Your task to perform on an android device: turn off location Image 0: 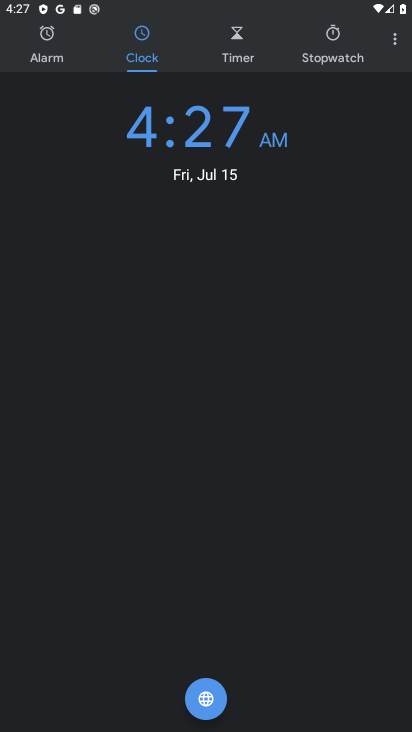
Step 0: press back button
Your task to perform on an android device: turn off location Image 1: 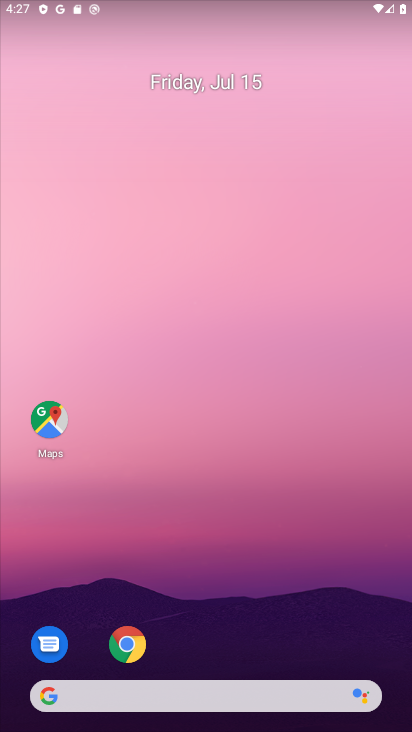
Step 1: drag from (205, 675) to (210, 304)
Your task to perform on an android device: turn off location Image 2: 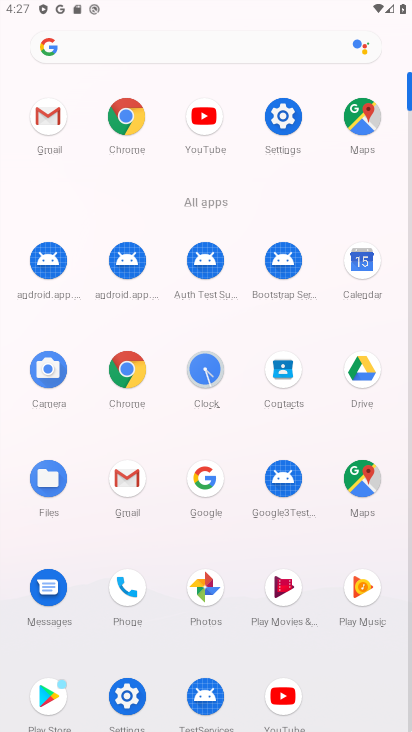
Step 2: click (272, 125)
Your task to perform on an android device: turn off location Image 3: 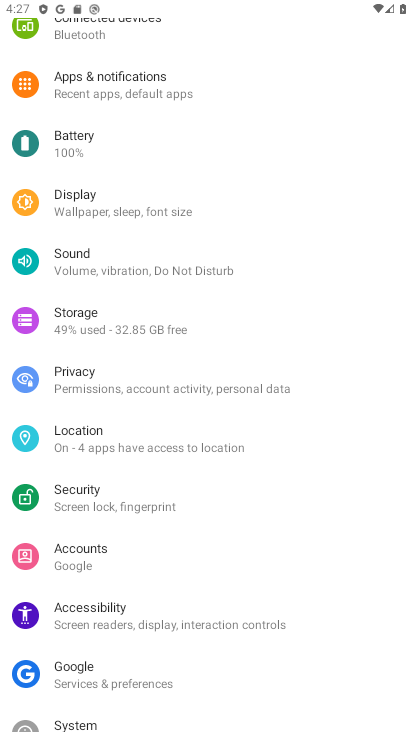
Step 3: drag from (343, 253) to (316, 66)
Your task to perform on an android device: turn off location Image 4: 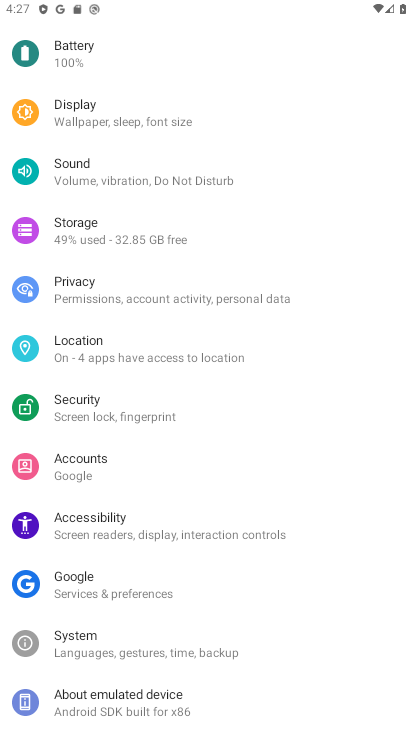
Step 4: drag from (320, 397) to (301, 181)
Your task to perform on an android device: turn off location Image 5: 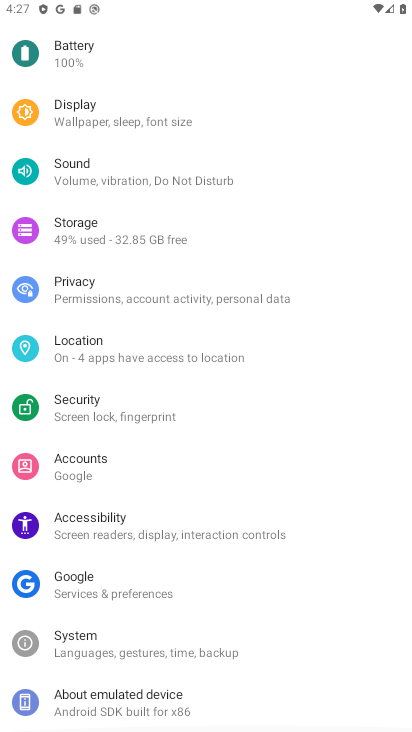
Step 5: drag from (308, 164) to (310, 517)
Your task to perform on an android device: turn off location Image 6: 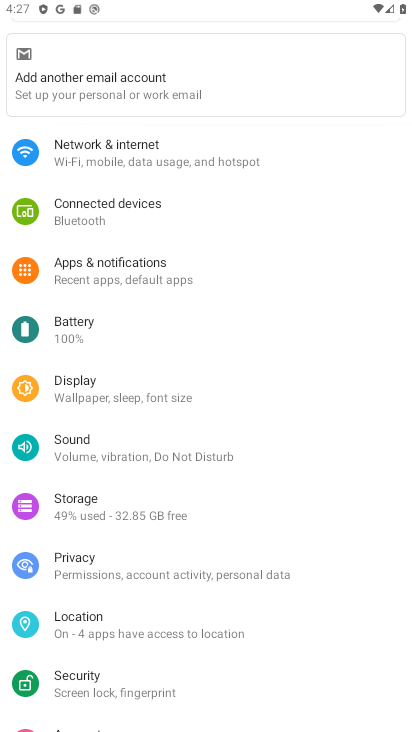
Step 6: drag from (307, 195) to (320, 566)
Your task to perform on an android device: turn off location Image 7: 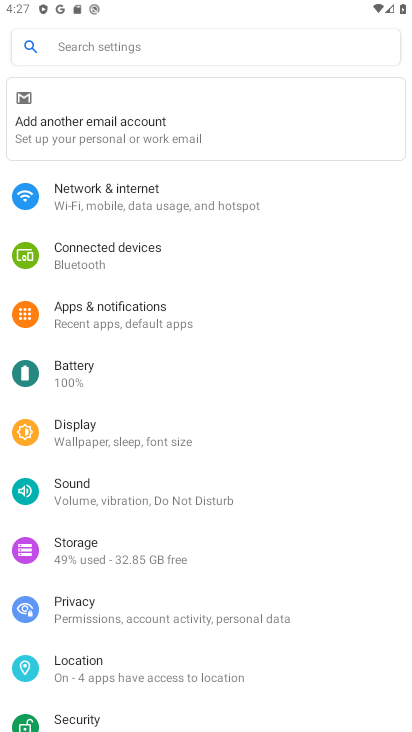
Step 7: click (83, 662)
Your task to perform on an android device: turn off location Image 8: 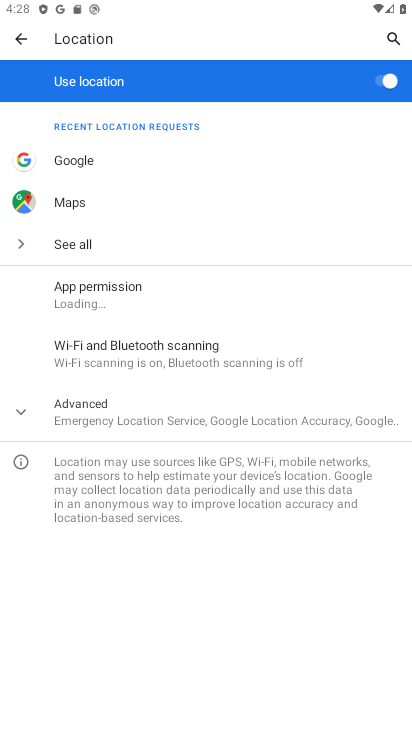
Step 8: click (378, 78)
Your task to perform on an android device: turn off location Image 9: 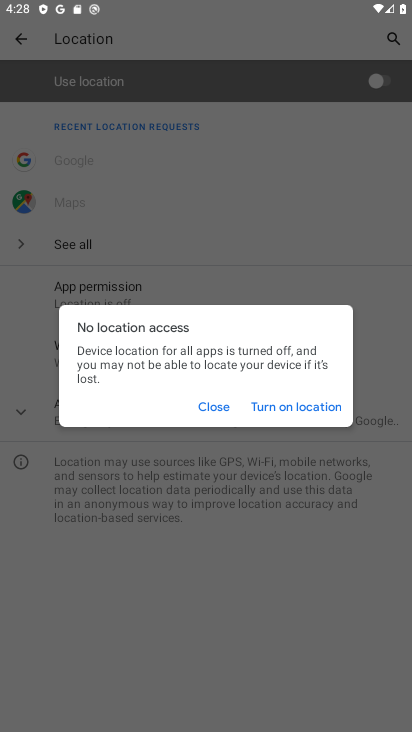
Step 9: click (209, 406)
Your task to perform on an android device: turn off location Image 10: 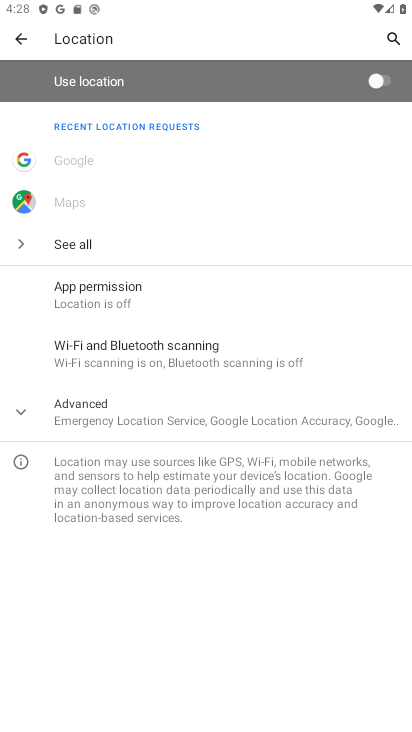
Step 10: task complete